Your task to perform on an android device: Do I have any events tomorrow? Image 0: 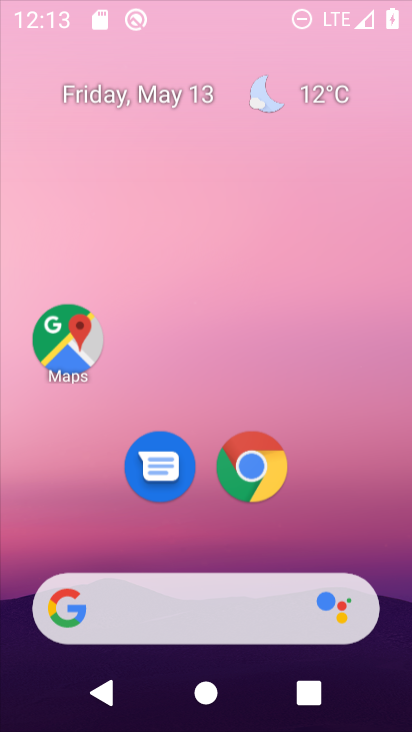
Step 0: click (255, 5)
Your task to perform on an android device: Do I have any events tomorrow? Image 1: 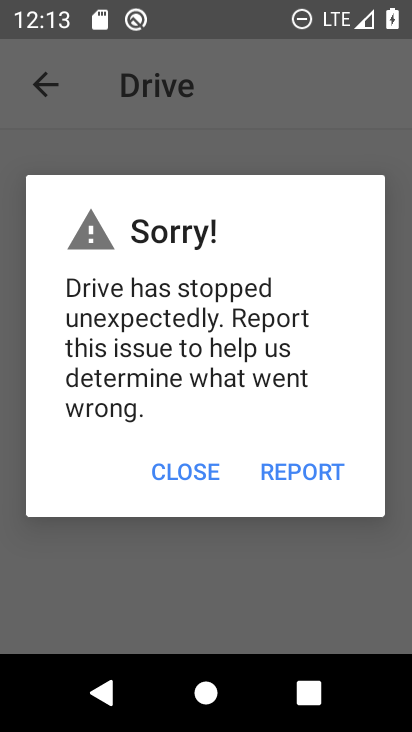
Step 1: press back button
Your task to perform on an android device: Do I have any events tomorrow? Image 2: 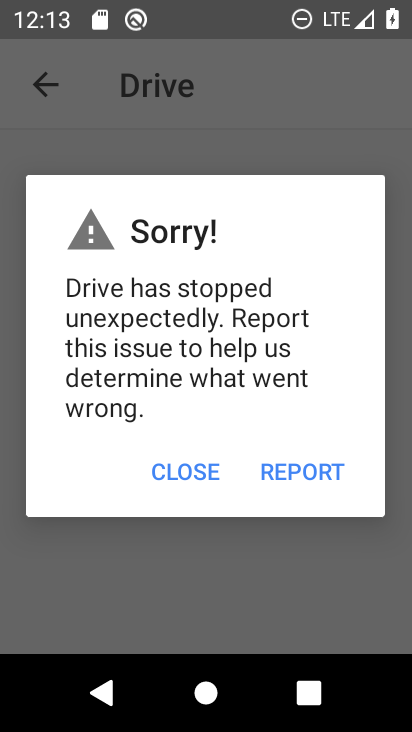
Step 2: press home button
Your task to perform on an android device: Do I have any events tomorrow? Image 3: 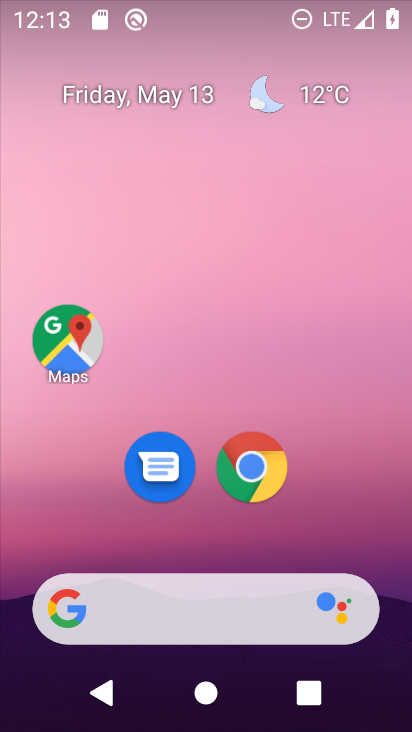
Step 3: drag from (342, 508) to (269, 1)
Your task to perform on an android device: Do I have any events tomorrow? Image 4: 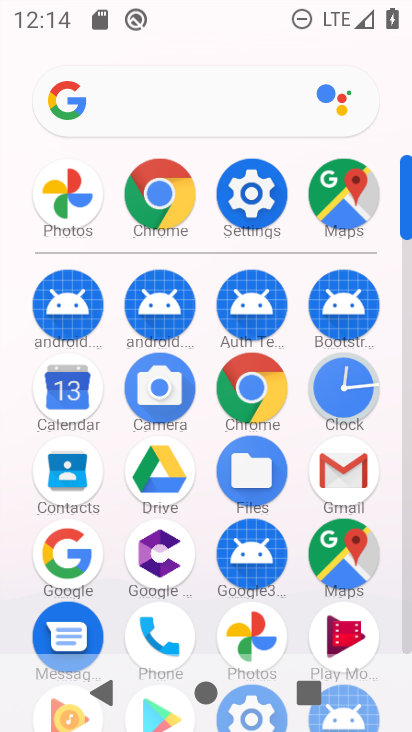
Step 4: click (64, 383)
Your task to perform on an android device: Do I have any events tomorrow? Image 5: 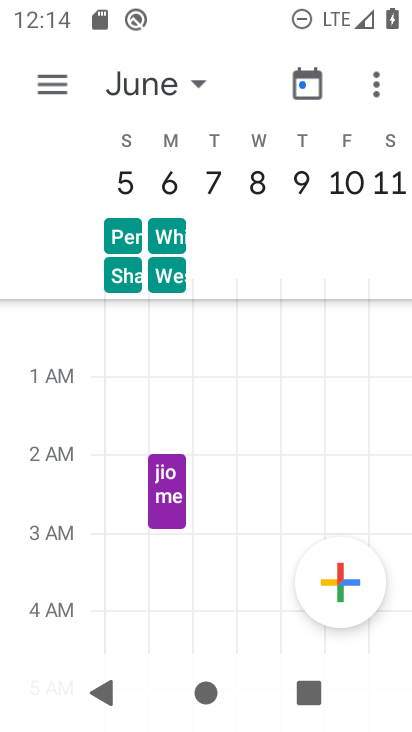
Step 5: click (53, 90)
Your task to perform on an android device: Do I have any events tomorrow? Image 6: 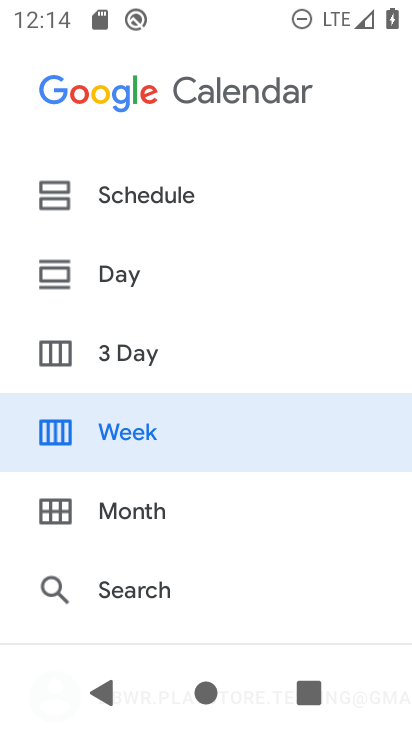
Step 6: drag from (194, 489) to (187, 193)
Your task to perform on an android device: Do I have any events tomorrow? Image 7: 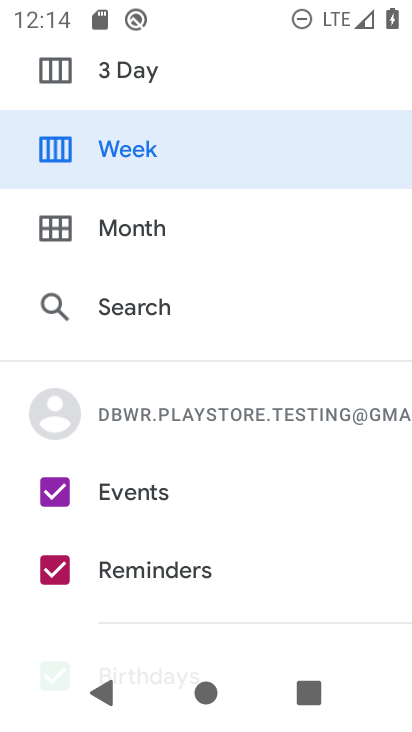
Step 7: drag from (200, 95) to (223, 404)
Your task to perform on an android device: Do I have any events tomorrow? Image 8: 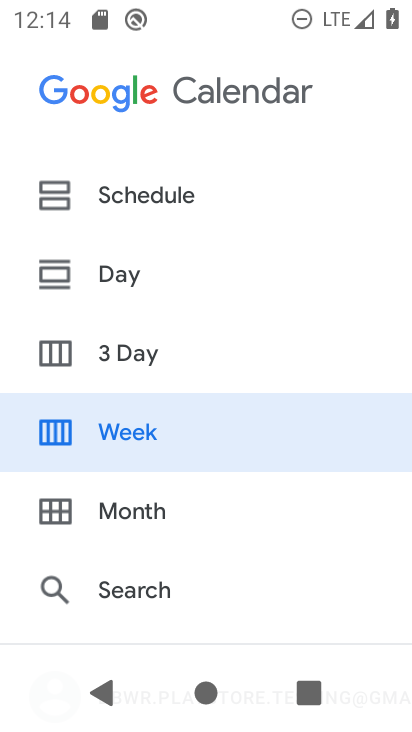
Step 8: drag from (266, 487) to (256, 150)
Your task to perform on an android device: Do I have any events tomorrow? Image 9: 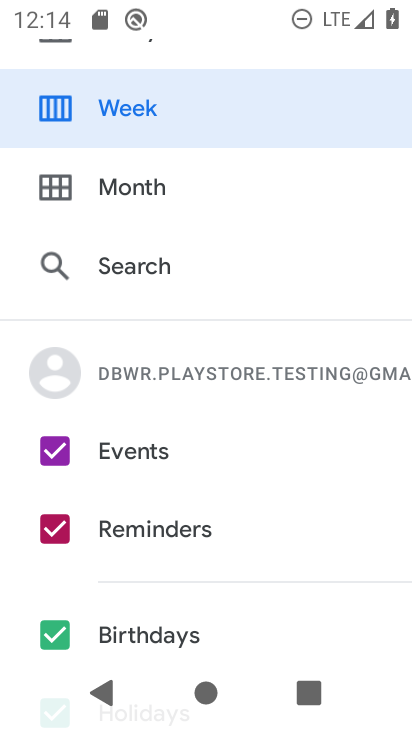
Step 9: drag from (237, 547) to (256, 148)
Your task to perform on an android device: Do I have any events tomorrow? Image 10: 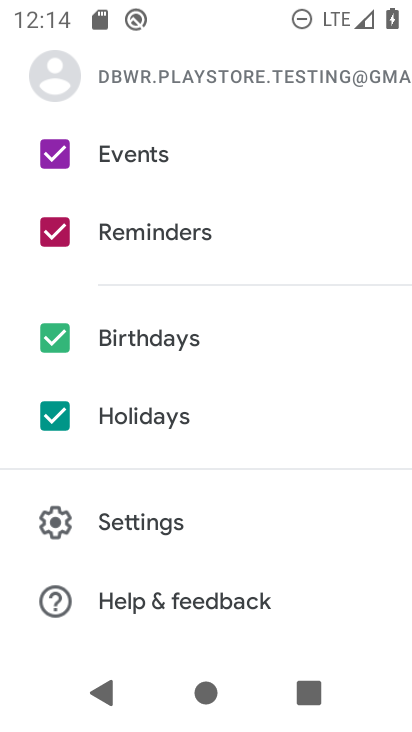
Step 10: drag from (229, 499) to (234, 148)
Your task to perform on an android device: Do I have any events tomorrow? Image 11: 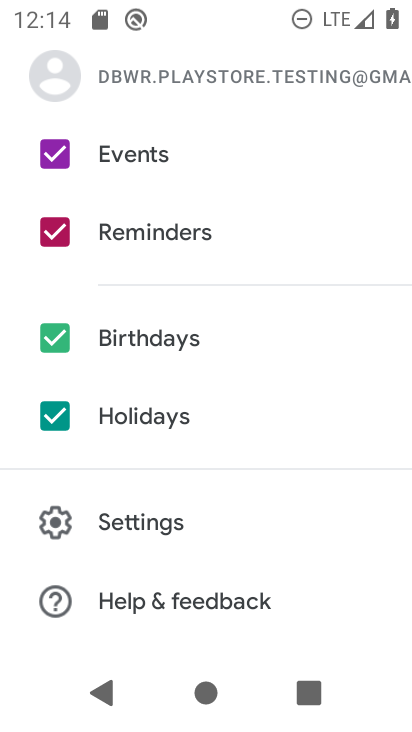
Step 11: drag from (254, 140) to (255, 544)
Your task to perform on an android device: Do I have any events tomorrow? Image 12: 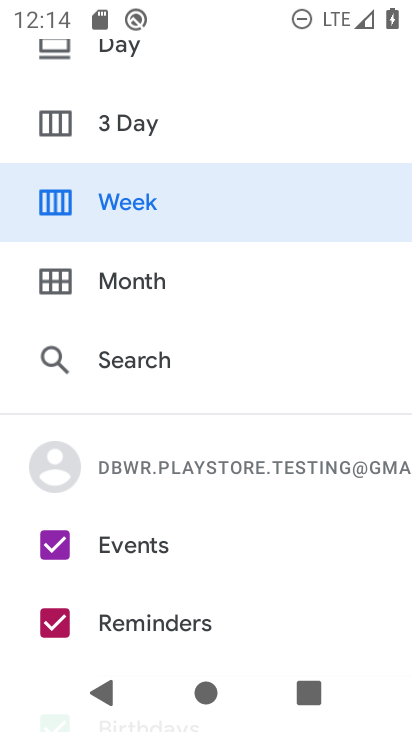
Step 12: drag from (369, 303) to (51, 350)
Your task to perform on an android device: Do I have any events tomorrow? Image 13: 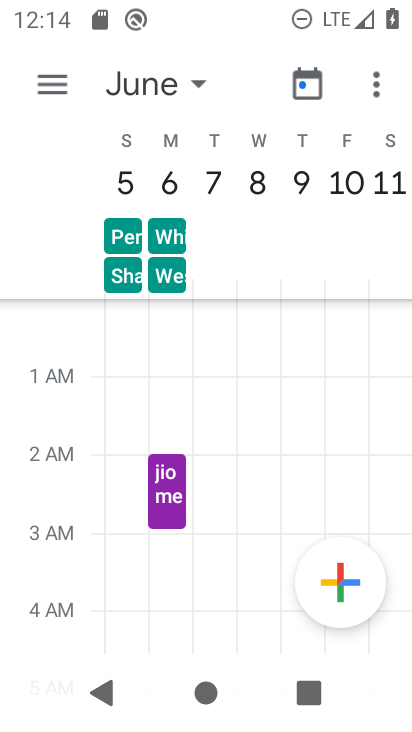
Step 13: click (303, 75)
Your task to perform on an android device: Do I have any events tomorrow? Image 14: 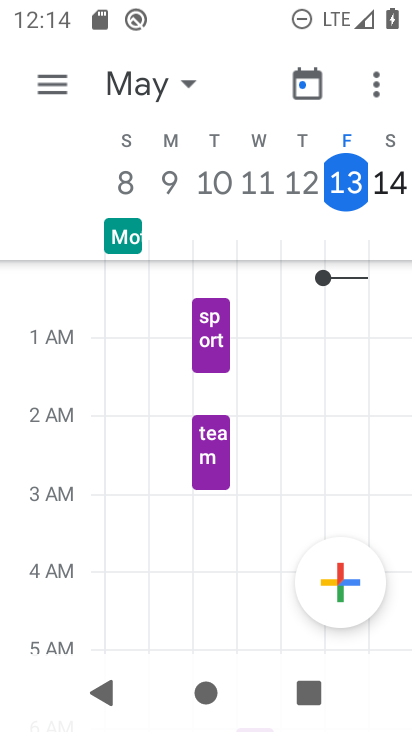
Step 14: click (386, 175)
Your task to perform on an android device: Do I have any events tomorrow? Image 15: 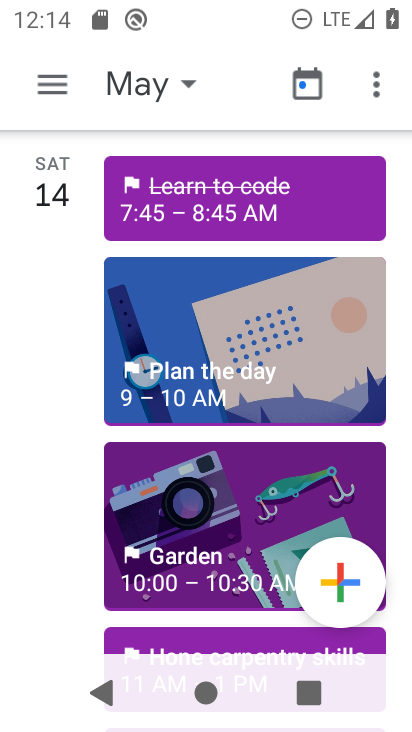
Step 15: task complete